Your task to perform on an android device: Open Android settings Image 0: 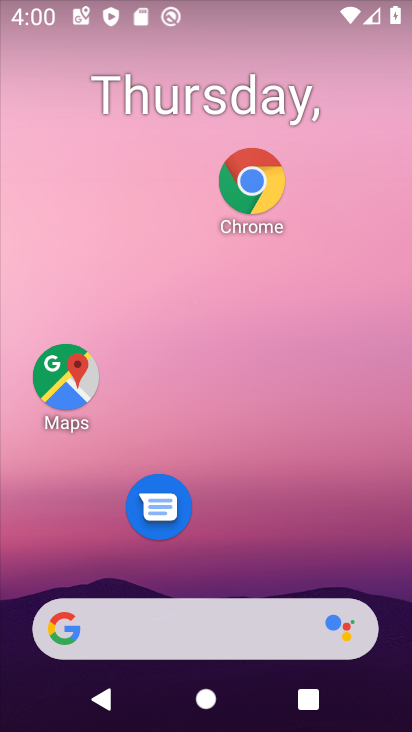
Step 0: drag from (237, 257) to (239, 114)
Your task to perform on an android device: Open Android settings Image 1: 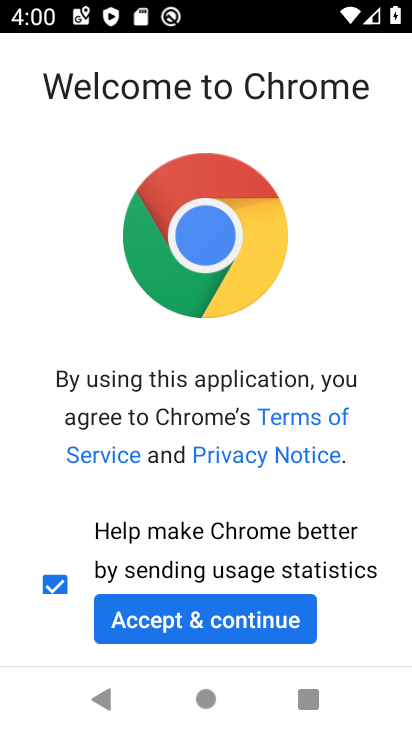
Step 1: press back button
Your task to perform on an android device: Open Android settings Image 2: 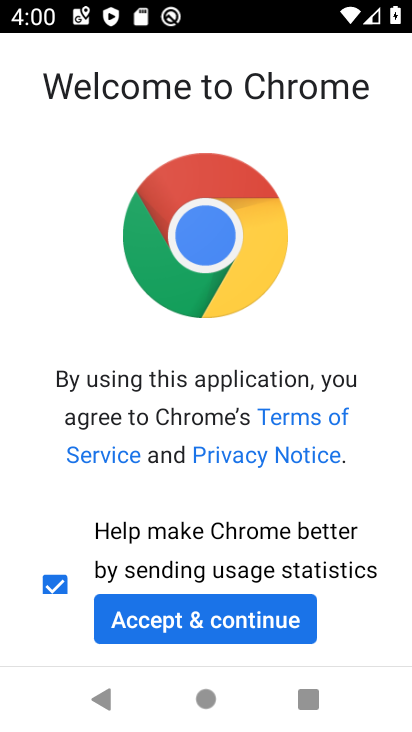
Step 2: press back button
Your task to perform on an android device: Open Android settings Image 3: 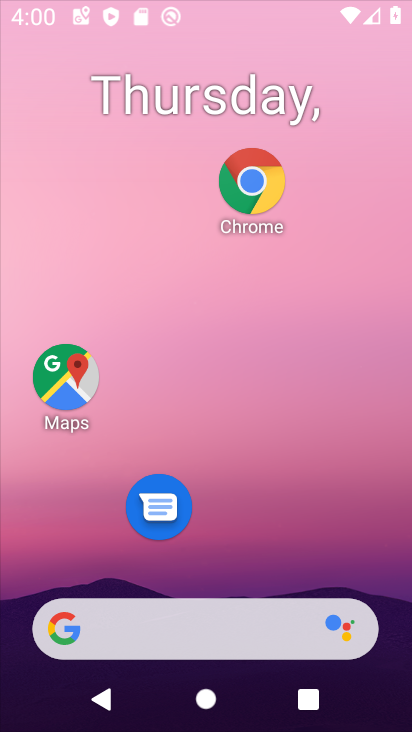
Step 3: press back button
Your task to perform on an android device: Open Android settings Image 4: 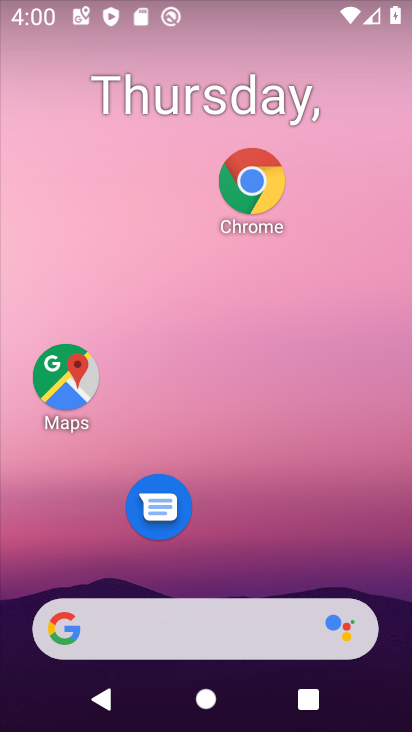
Step 4: drag from (254, 397) to (209, 7)
Your task to perform on an android device: Open Android settings Image 5: 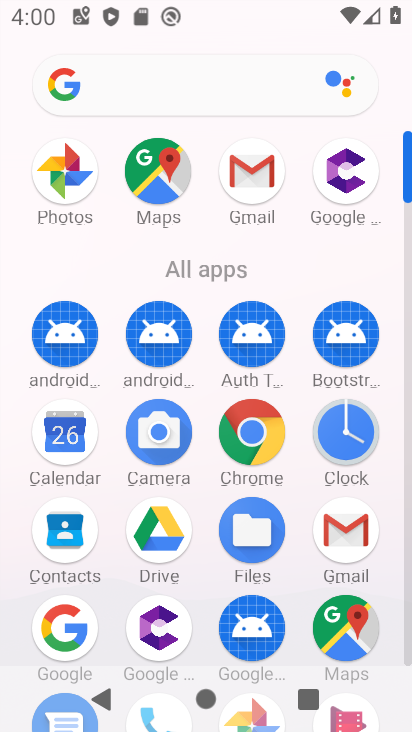
Step 5: drag from (199, 488) to (219, 197)
Your task to perform on an android device: Open Android settings Image 6: 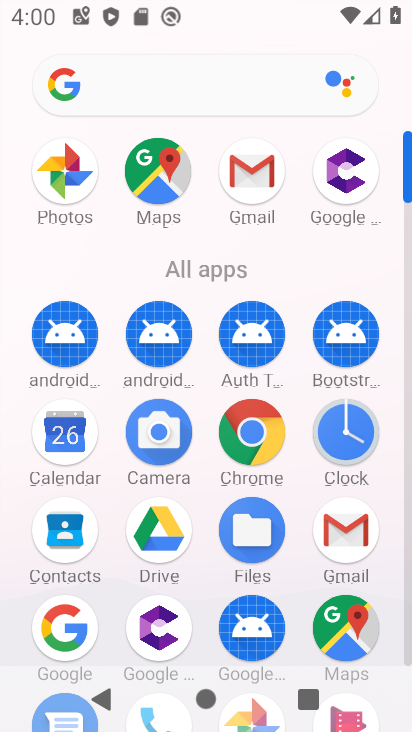
Step 6: drag from (151, 529) to (151, 282)
Your task to perform on an android device: Open Android settings Image 7: 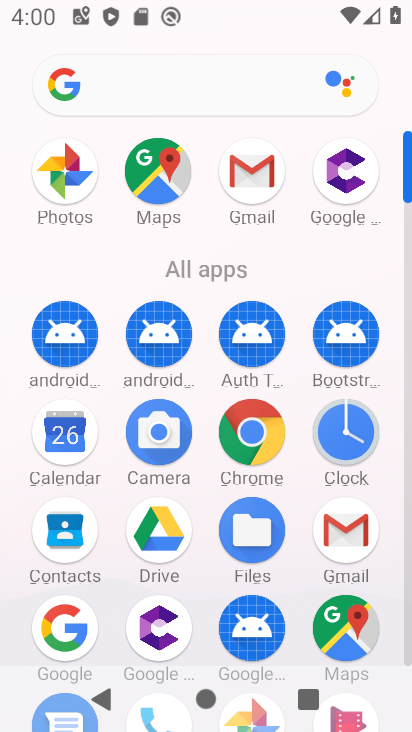
Step 7: drag from (191, 416) to (206, 280)
Your task to perform on an android device: Open Android settings Image 8: 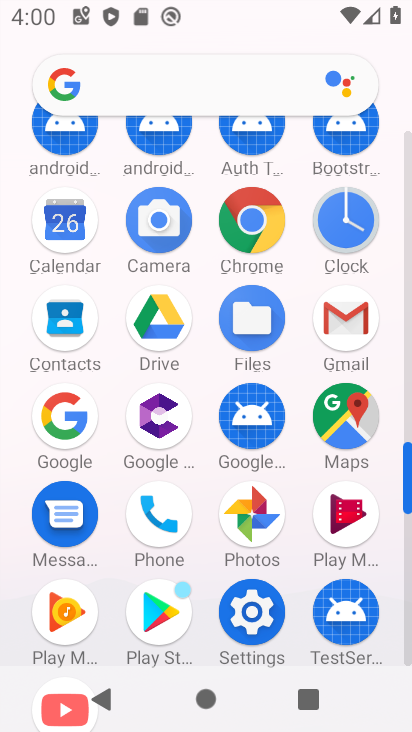
Step 8: drag from (193, 449) to (189, 261)
Your task to perform on an android device: Open Android settings Image 9: 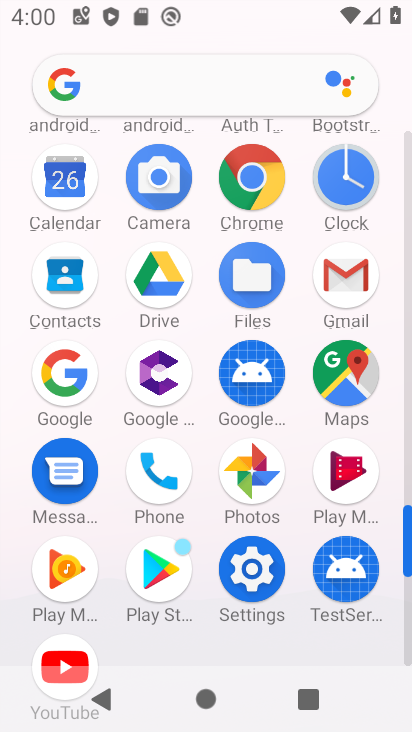
Step 9: click (262, 593)
Your task to perform on an android device: Open Android settings Image 10: 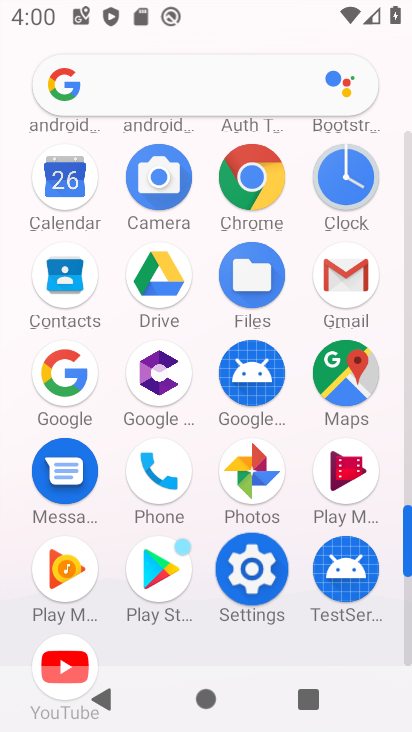
Step 10: click (259, 591)
Your task to perform on an android device: Open Android settings Image 11: 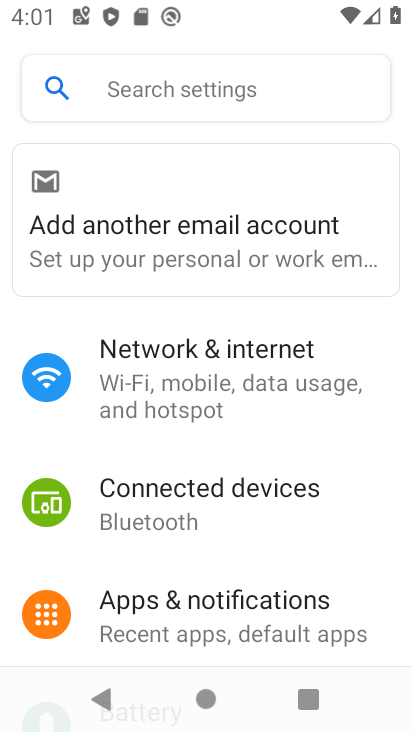
Step 11: click (226, 297)
Your task to perform on an android device: Open Android settings Image 12: 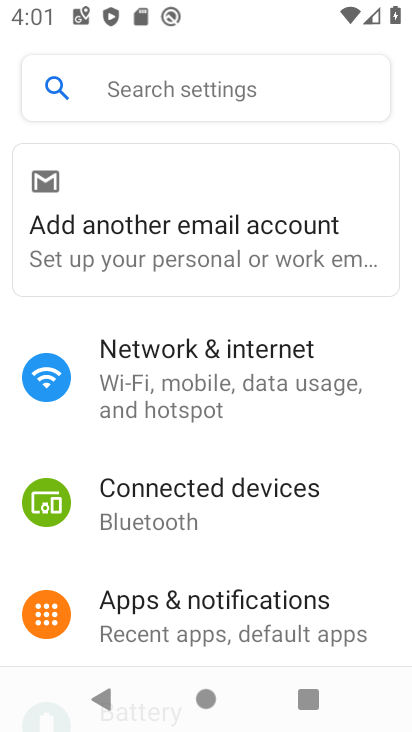
Step 12: drag from (243, 320) to (225, 226)
Your task to perform on an android device: Open Android settings Image 13: 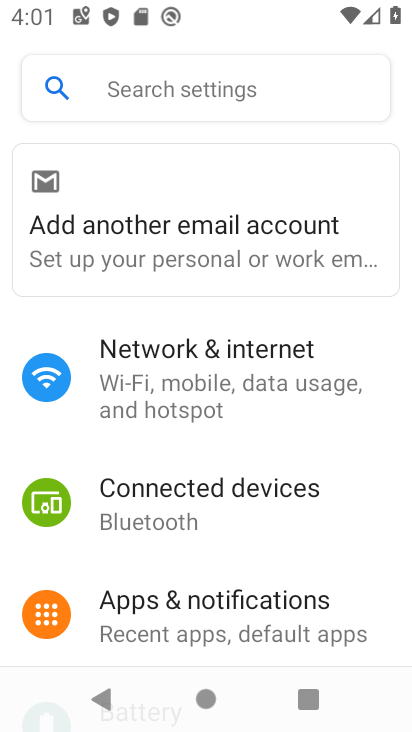
Step 13: drag from (150, 514) to (147, 258)
Your task to perform on an android device: Open Android settings Image 14: 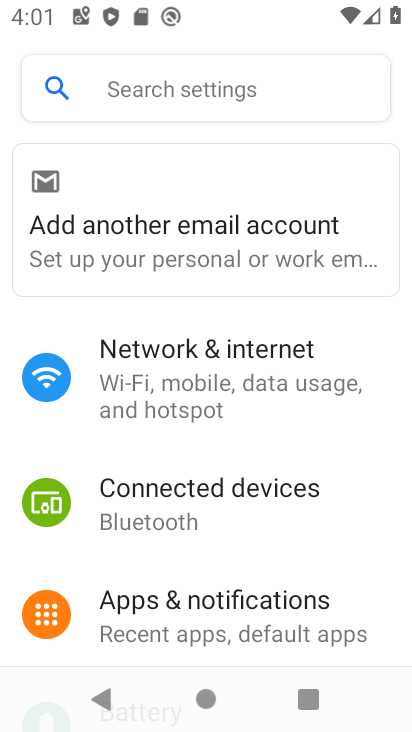
Step 14: drag from (157, 414) to (153, 278)
Your task to perform on an android device: Open Android settings Image 15: 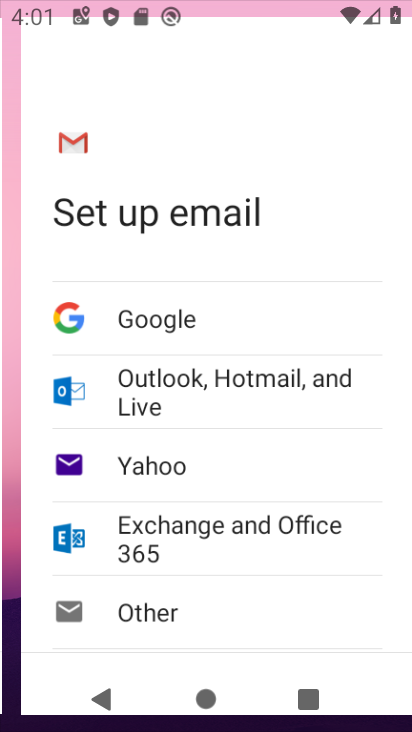
Step 15: drag from (190, 367) to (190, 319)
Your task to perform on an android device: Open Android settings Image 16: 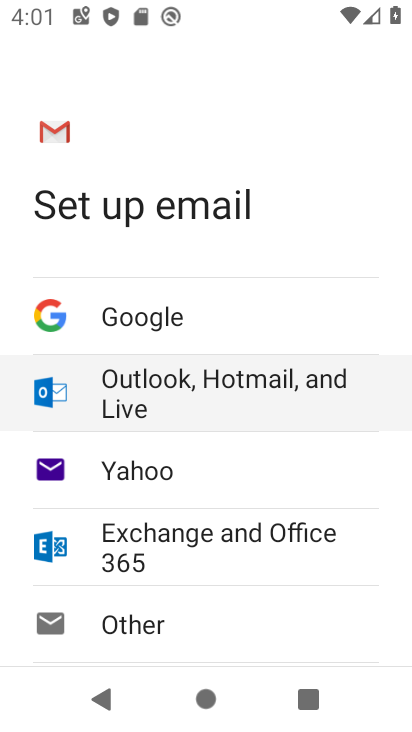
Step 16: click (211, 302)
Your task to perform on an android device: Open Android settings Image 17: 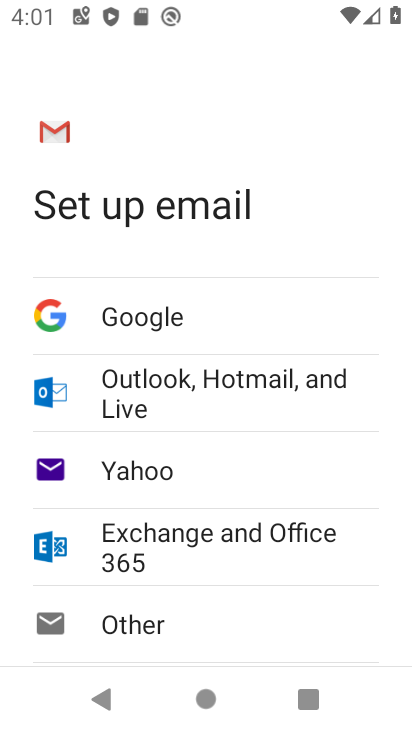
Step 17: click (273, 345)
Your task to perform on an android device: Open Android settings Image 18: 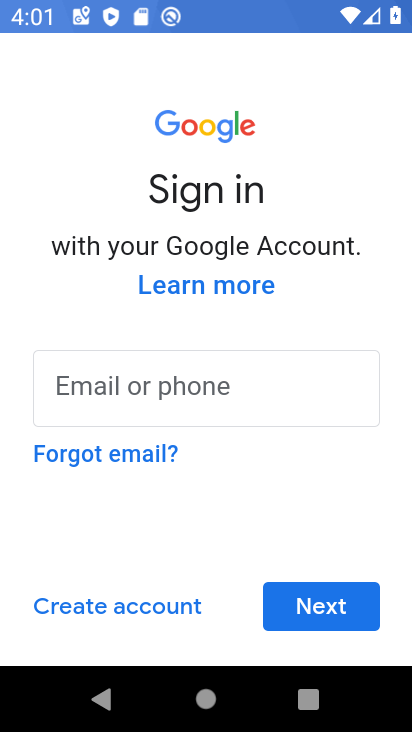
Step 18: press back button
Your task to perform on an android device: Open Android settings Image 19: 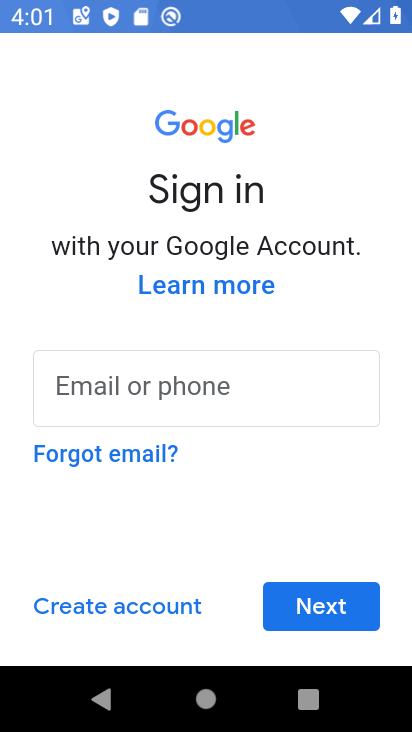
Step 19: press back button
Your task to perform on an android device: Open Android settings Image 20: 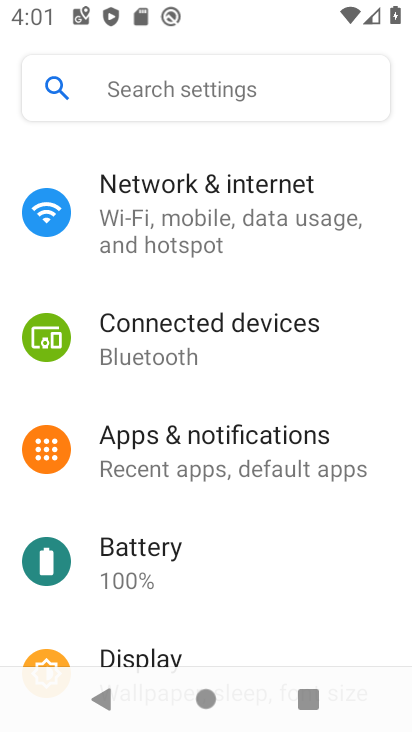
Step 20: press back button
Your task to perform on an android device: Open Android settings Image 21: 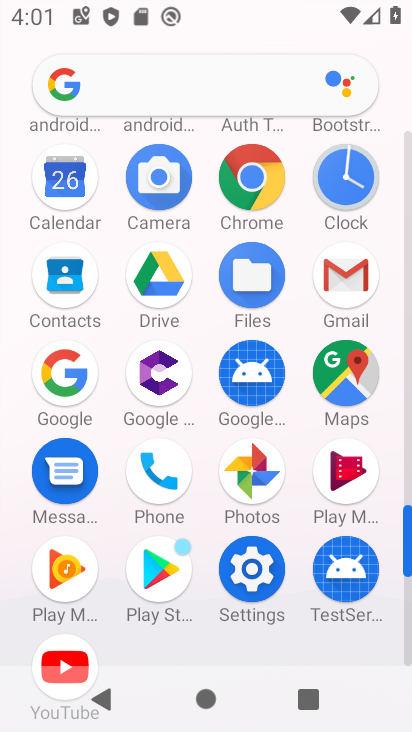
Step 21: drag from (181, 564) to (232, 136)
Your task to perform on an android device: Open Android settings Image 22: 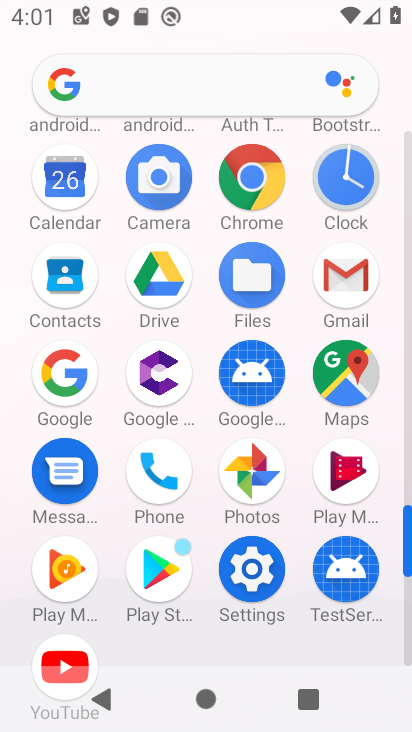
Step 22: click (256, 572)
Your task to perform on an android device: Open Android settings Image 23: 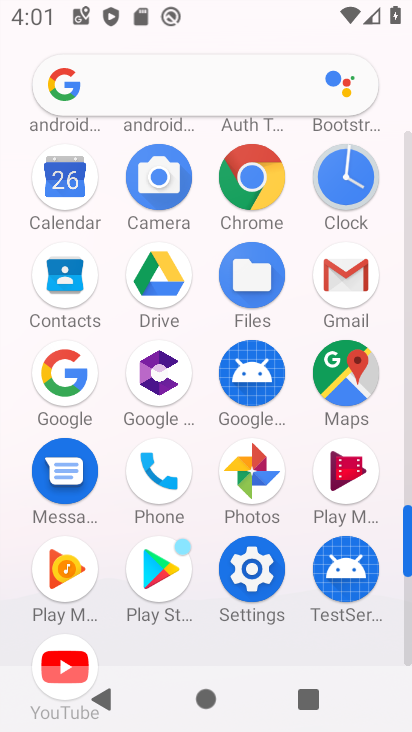
Step 23: click (257, 569)
Your task to perform on an android device: Open Android settings Image 24: 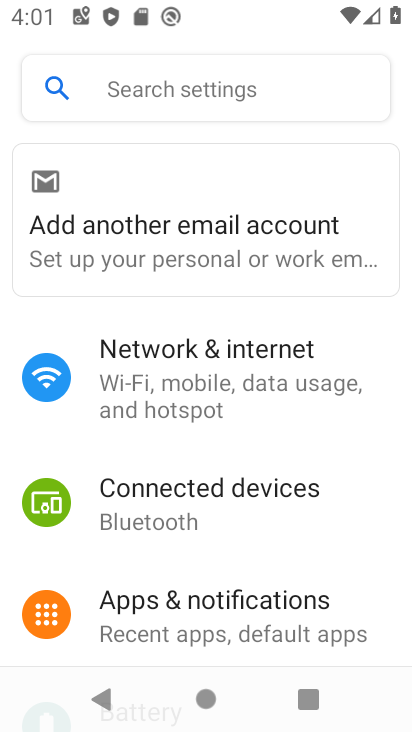
Step 24: click (179, 335)
Your task to perform on an android device: Open Android settings Image 25: 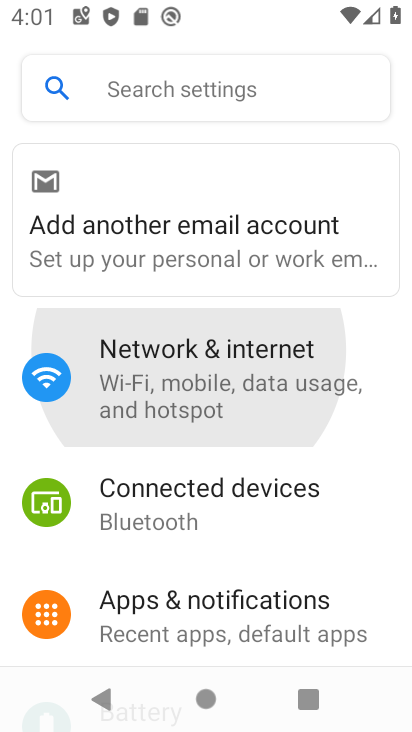
Step 25: drag from (215, 467) to (215, 292)
Your task to perform on an android device: Open Android settings Image 26: 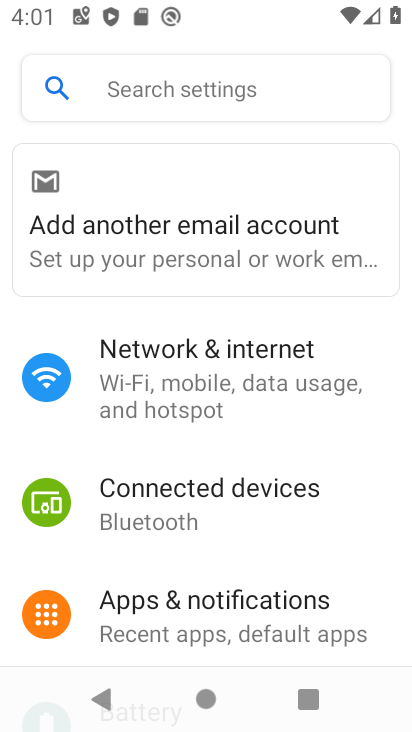
Step 26: drag from (238, 487) to (251, 314)
Your task to perform on an android device: Open Android settings Image 27: 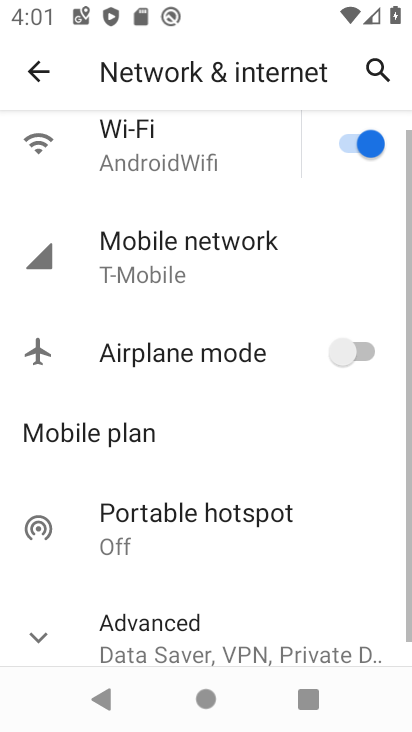
Step 27: drag from (212, 533) to (215, 315)
Your task to perform on an android device: Open Android settings Image 28: 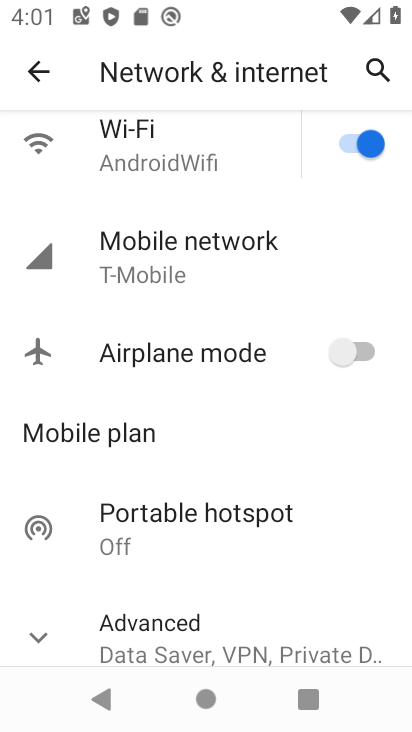
Step 28: click (232, 298)
Your task to perform on an android device: Open Android settings Image 29: 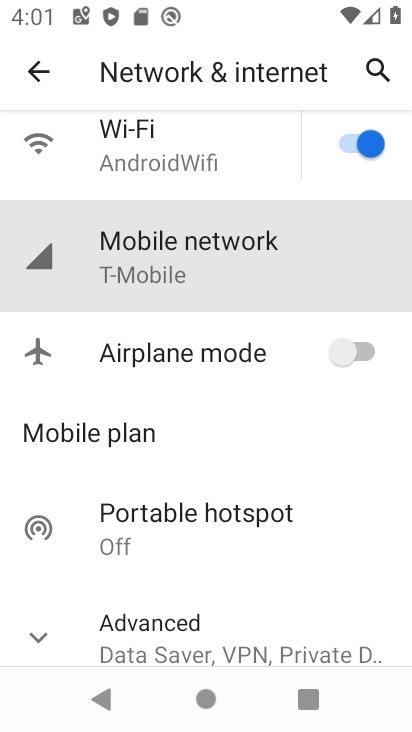
Step 29: drag from (218, 443) to (196, 202)
Your task to perform on an android device: Open Android settings Image 30: 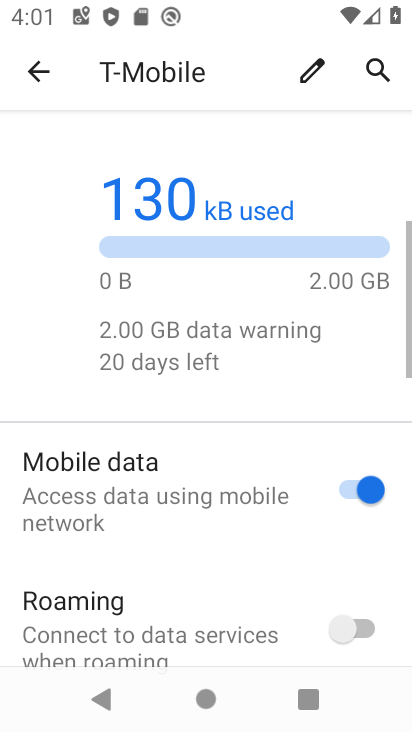
Step 30: click (162, 287)
Your task to perform on an android device: Open Android settings Image 31: 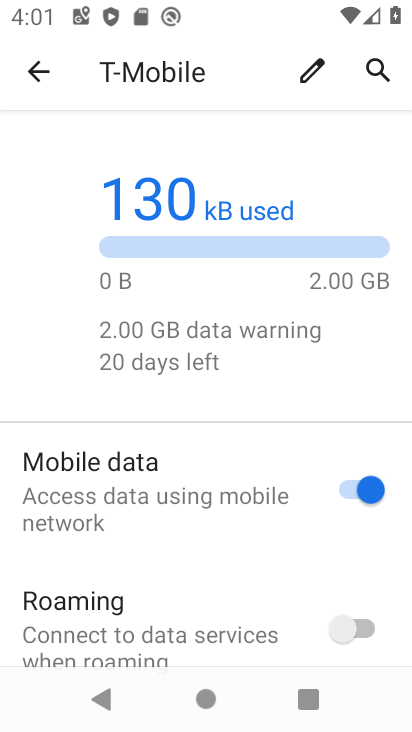
Step 31: click (46, 74)
Your task to perform on an android device: Open Android settings Image 32: 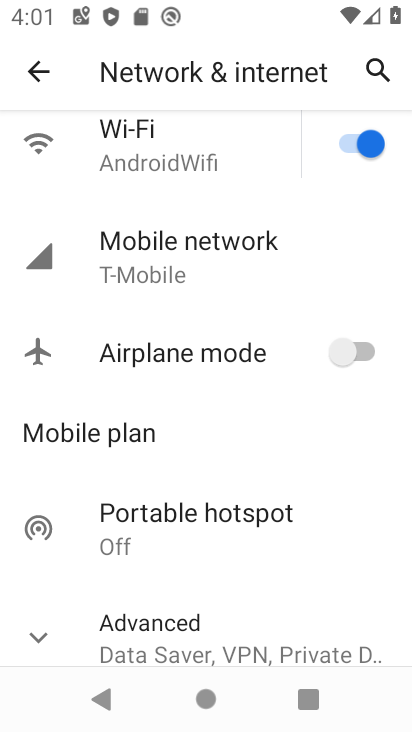
Step 32: drag from (208, 562) to (176, 344)
Your task to perform on an android device: Open Android settings Image 33: 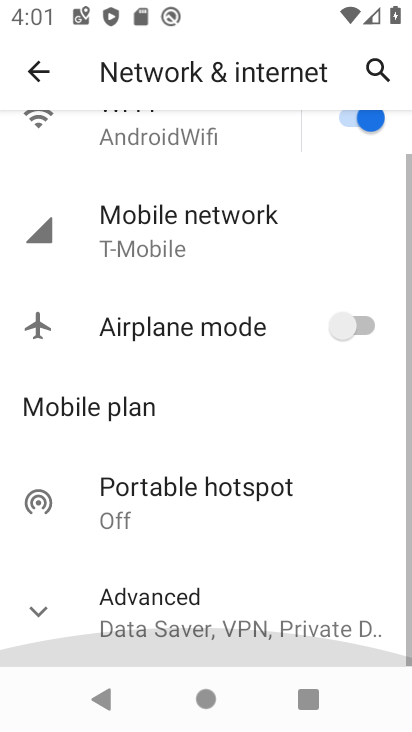
Step 33: drag from (202, 503) to (218, 356)
Your task to perform on an android device: Open Android settings Image 34: 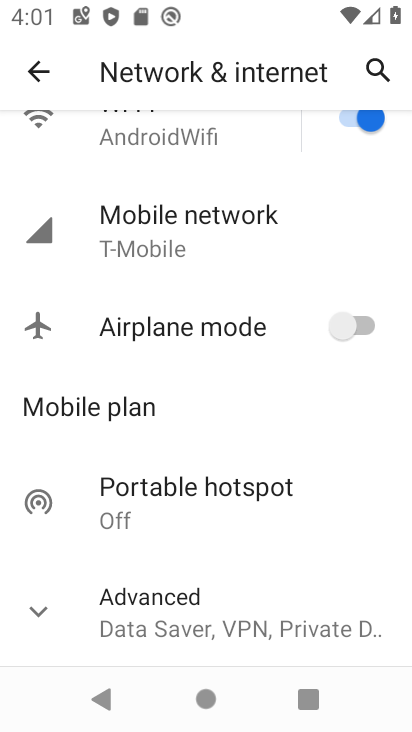
Step 34: click (255, 372)
Your task to perform on an android device: Open Android settings Image 35: 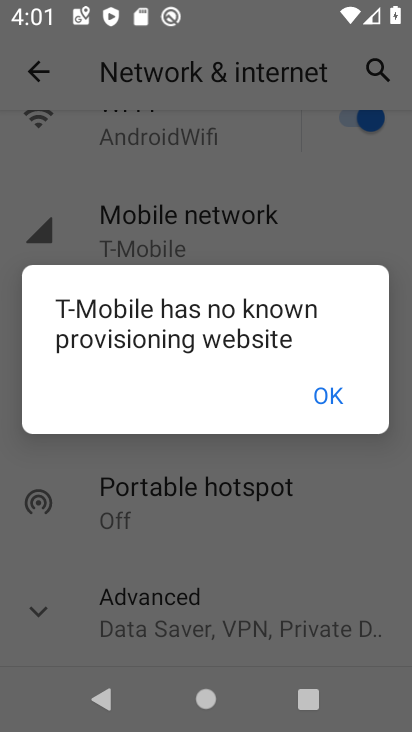
Step 35: click (332, 396)
Your task to perform on an android device: Open Android settings Image 36: 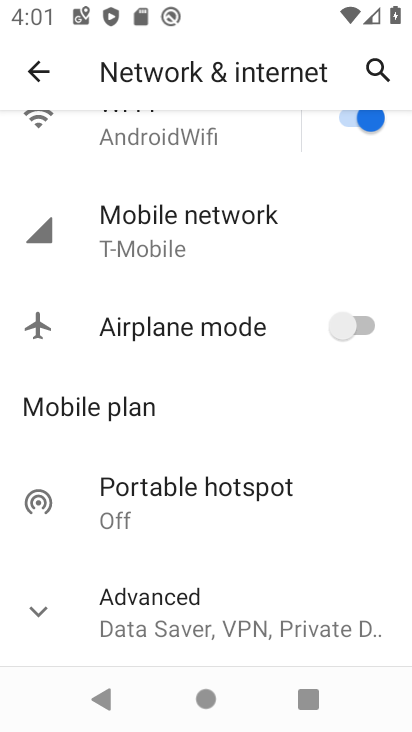
Step 36: click (27, 59)
Your task to perform on an android device: Open Android settings Image 37: 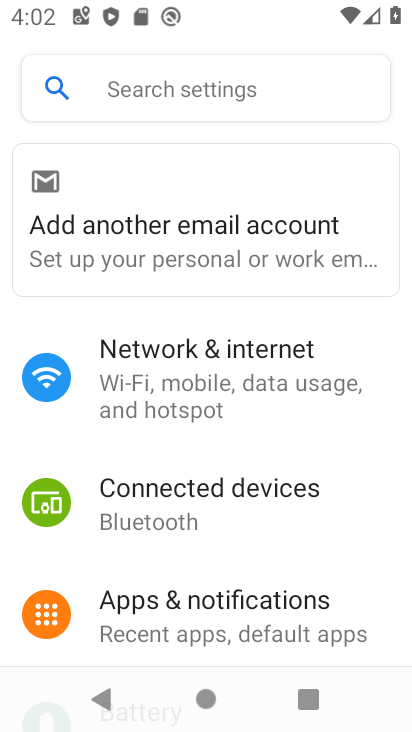
Step 37: drag from (168, 457) to (168, 227)
Your task to perform on an android device: Open Android settings Image 38: 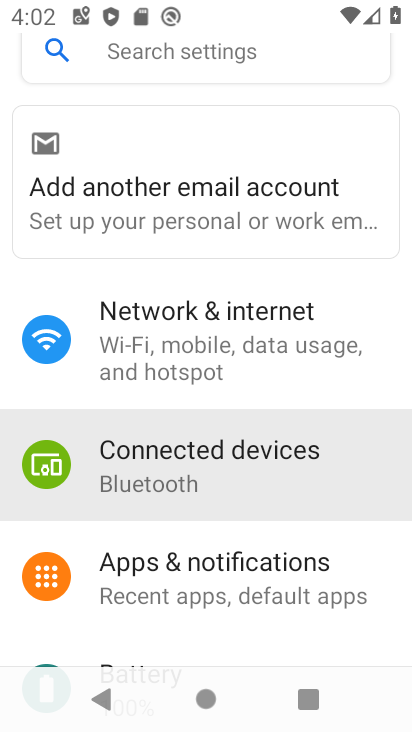
Step 38: drag from (224, 533) to (250, 358)
Your task to perform on an android device: Open Android settings Image 39: 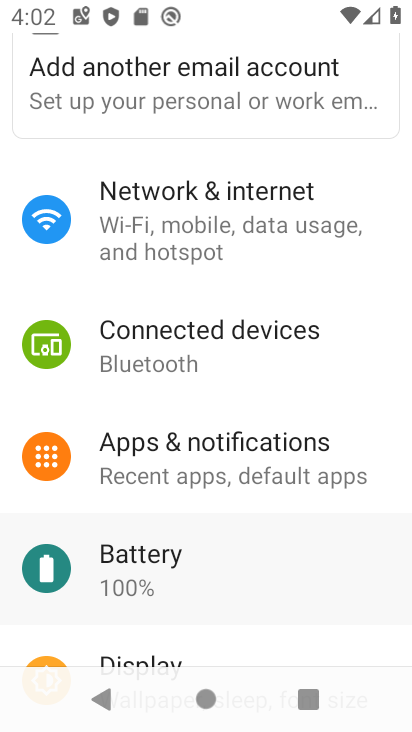
Step 39: drag from (265, 507) to (268, 275)
Your task to perform on an android device: Open Android settings Image 40: 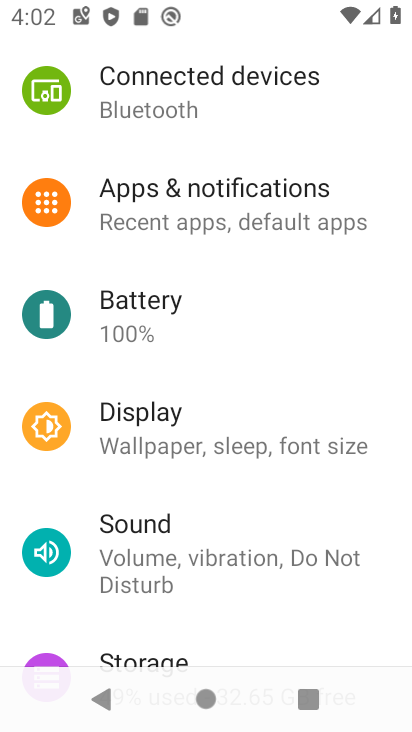
Step 40: drag from (225, 300) to (231, 236)
Your task to perform on an android device: Open Android settings Image 41: 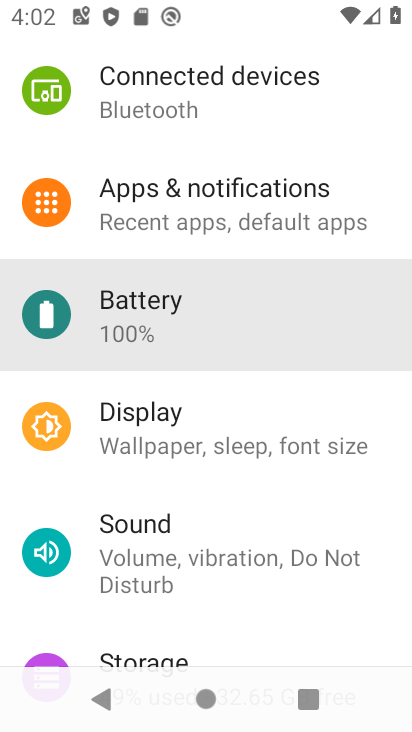
Step 41: drag from (227, 443) to (241, 204)
Your task to perform on an android device: Open Android settings Image 42: 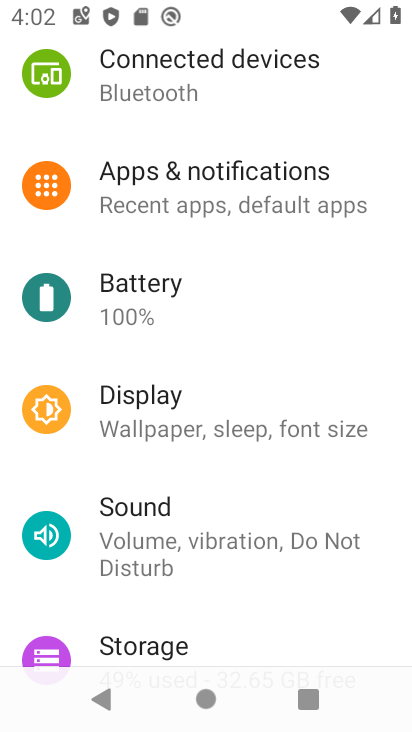
Step 42: click (227, 183)
Your task to perform on an android device: Open Android settings Image 43: 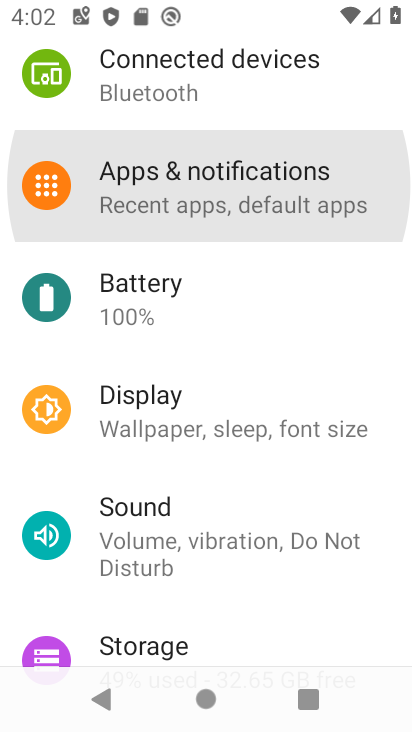
Step 43: drag from (154, 493) to (188, 166)
Your task to perform on an android device: Open Android settings Image 44: 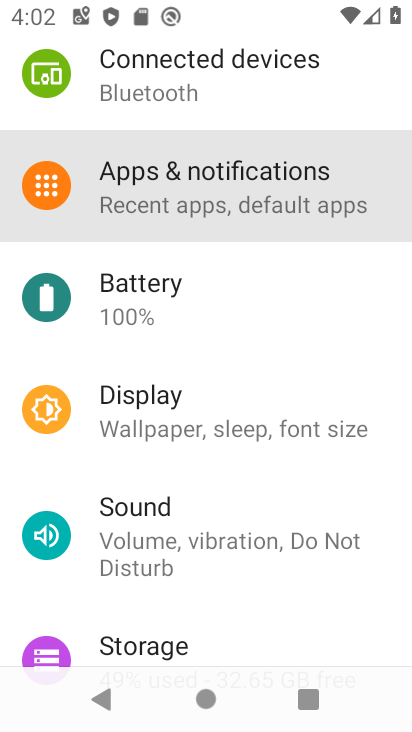
Step 44: drag from (228, 479) to (296, 186)
Your task to perform on an android device: Open Android settings Image 45: 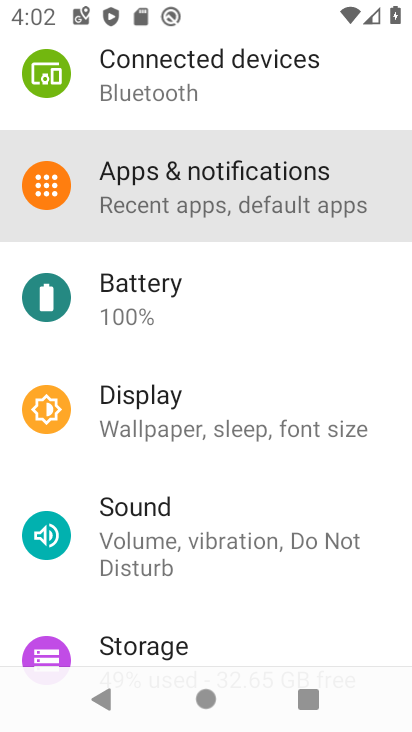
Step 45: drag from (329, 297) to (329, 161)
Your task to perform on an android device: Open Android settings Image 46: 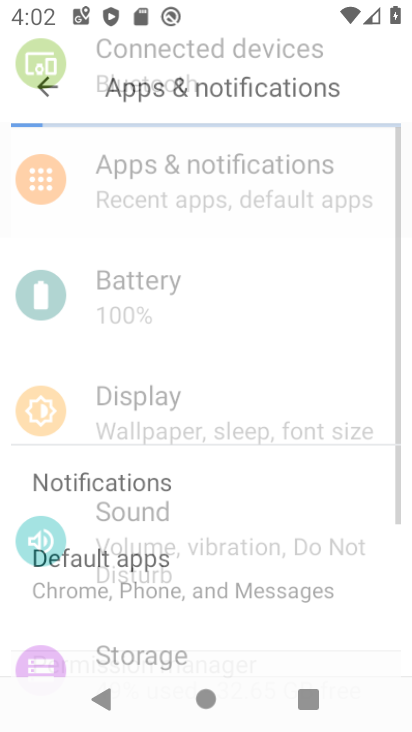
Step 46: drag from (214, 359) to (205, 187)
Your task to perform on an android device: Open Android settings Image 47: 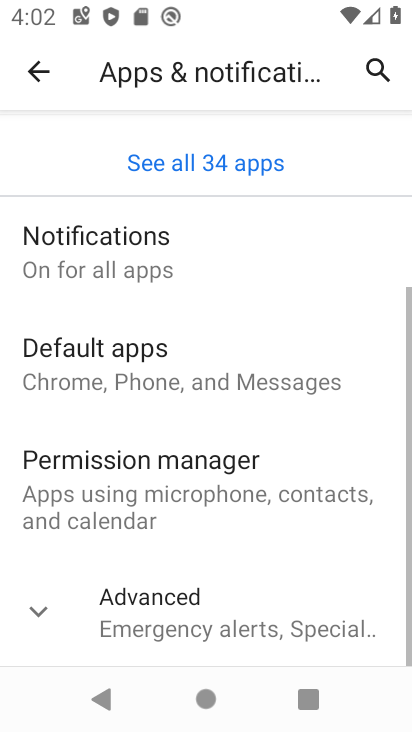
Step 47: click (30, 73)
Your task to perform on an android device: Open Android settings Image 48: 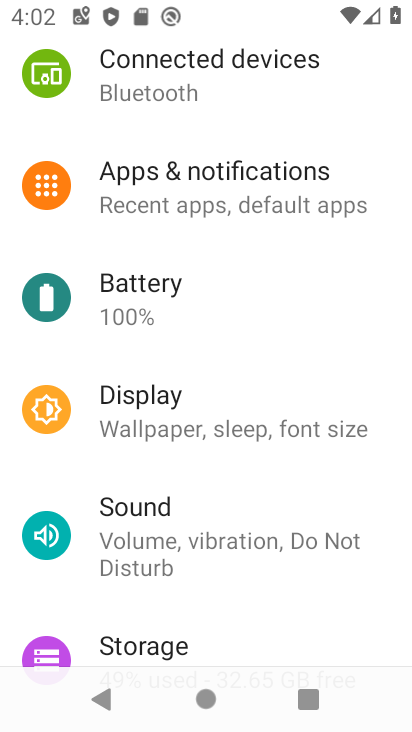
Step 48: drag from (184, 474) to (194, 220)
Your task to perform on an android device: Open Android settings Image 49: 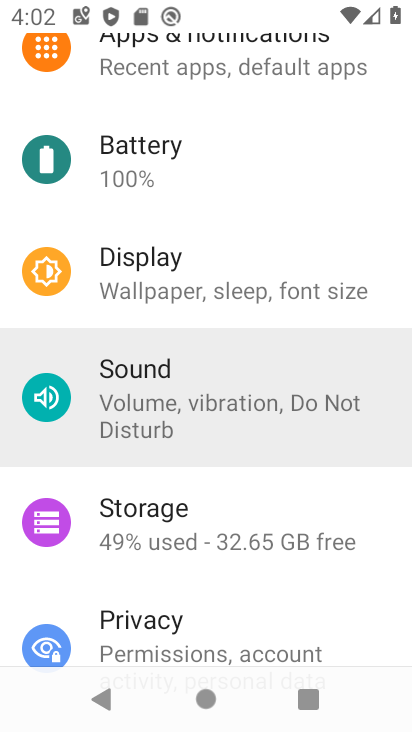
Step 49: drag from (230, 485) to (242, 270)
Your task to perform on an android device: Open Android settings Image 50: 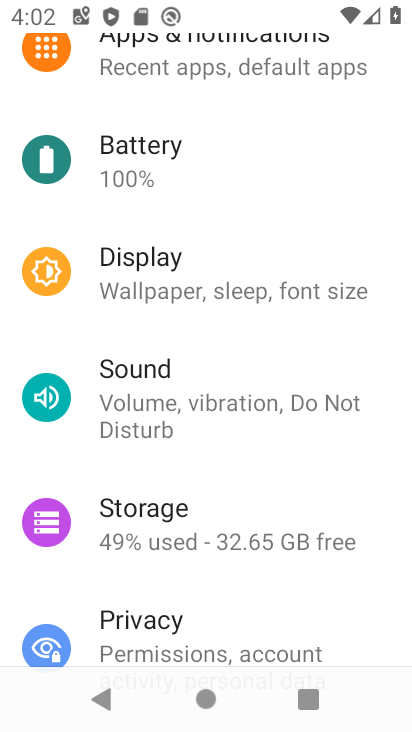
Step 50: drag from (230, 406) to (227, 281)
Your task to perform on an android device: Open Android settings Image 51: 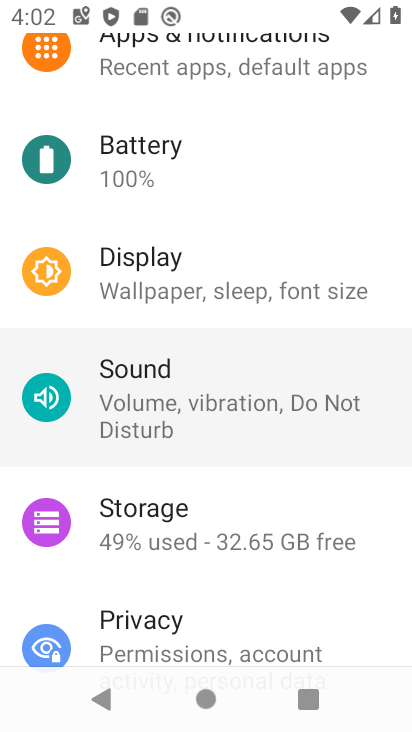
Step 51: click (233, 309)
Your task to perform on an android device: Open Android settings Image 52: 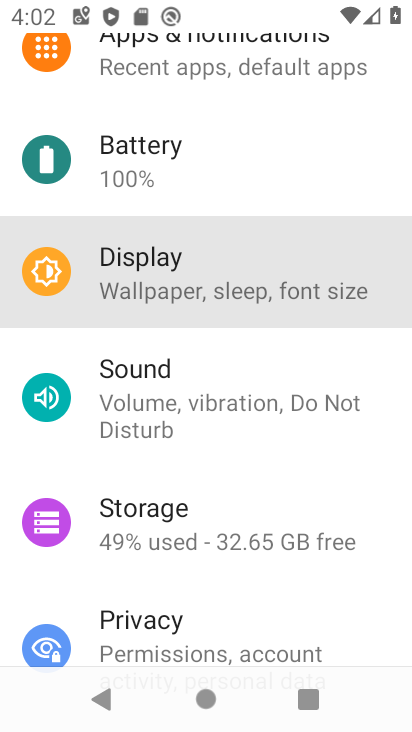
Step 52: drag from (207, 413) to (179, 295)
Your task to perform on an android device: Open Android settings Image 53: 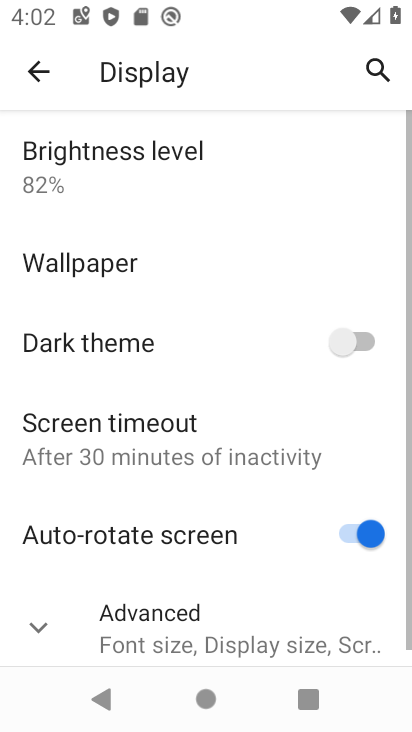
Step 53: drag from (233, 357) to (229, 221)
Your task to perform on an android device: Open Android settings Image 54: 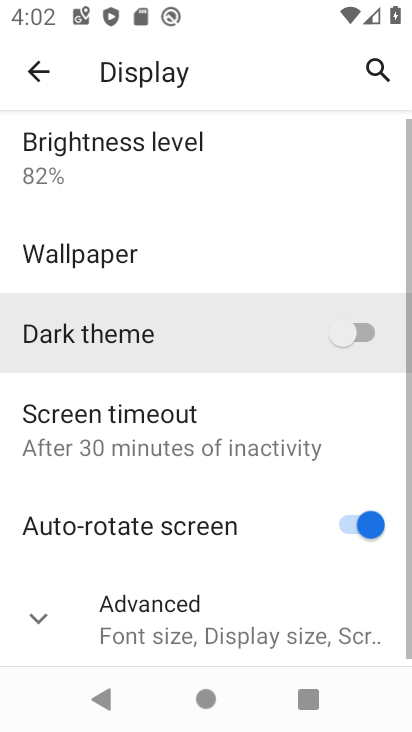
Step 54: drag from (229, 516) to (225, 239)
Your task to perform on an android device: Open Android settings Image 55: 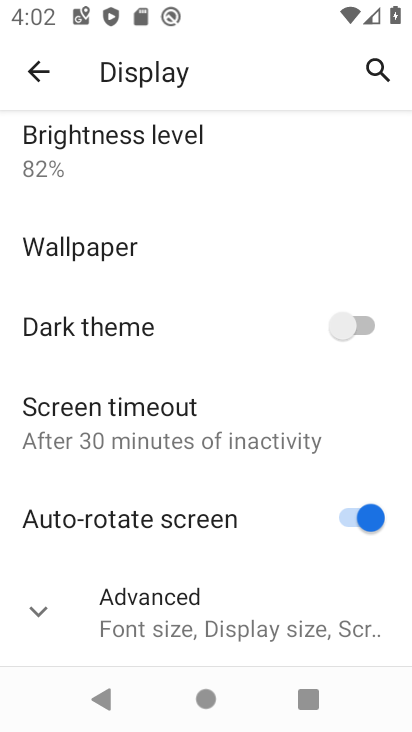
Step 55: click (40, 77)
Your task to perform on an android device: Open Android settings Image 56: 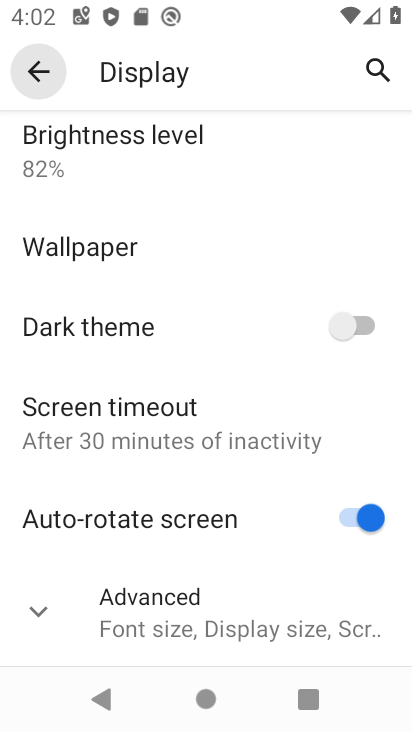
Step 56: click (40, 76)
Your task to perform on an android device: Open Android settings Image 57: 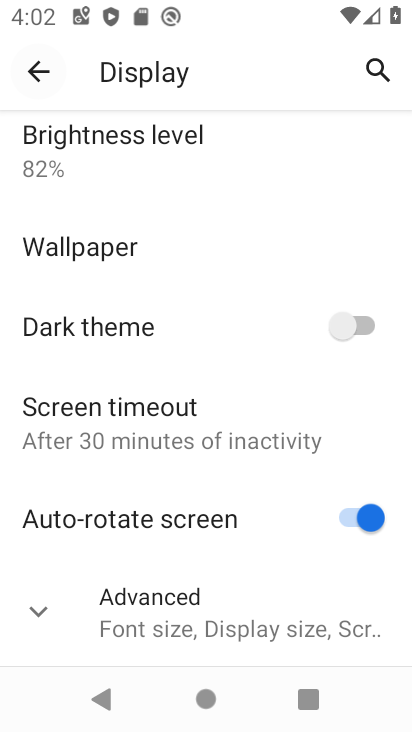
Step 57: click (39, 75)
Your task to perform on an android device: Open Android settings Image 58: 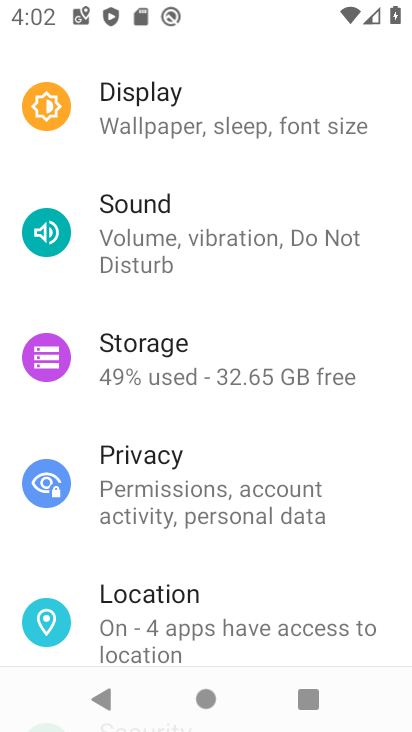
Step 58: drag from (159, 608) to (210, 205)
Your task to perform on an android device: Open Android settings Image 59: 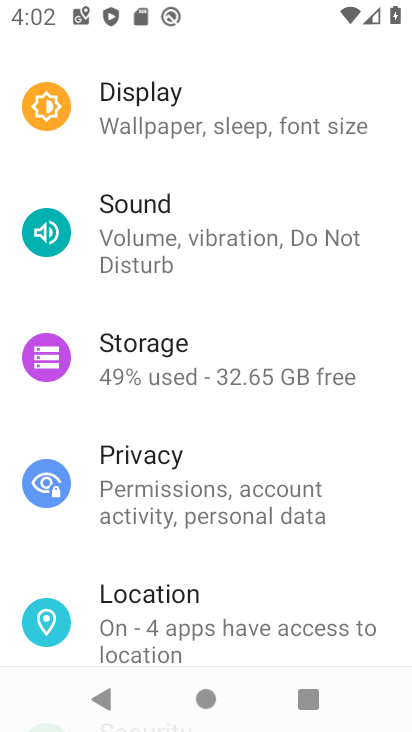
Step 59: drag from (200, 512) to (234, 77)
Your task to perform on an android device: Open Android settings Image 60: 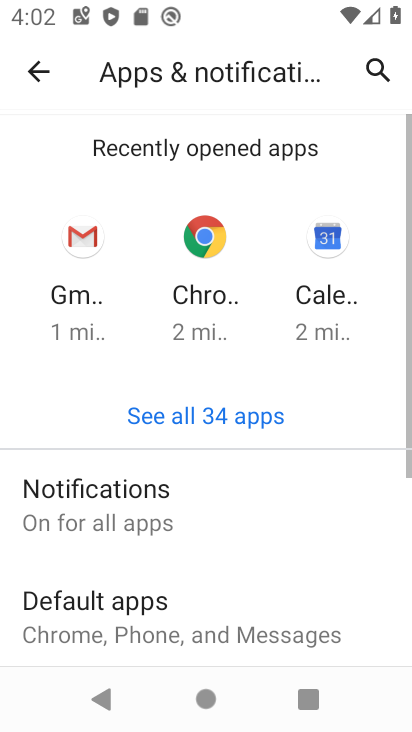
Step 60: click (166, 285)
Your task to perform on an android device: Open Android settings Image 61: 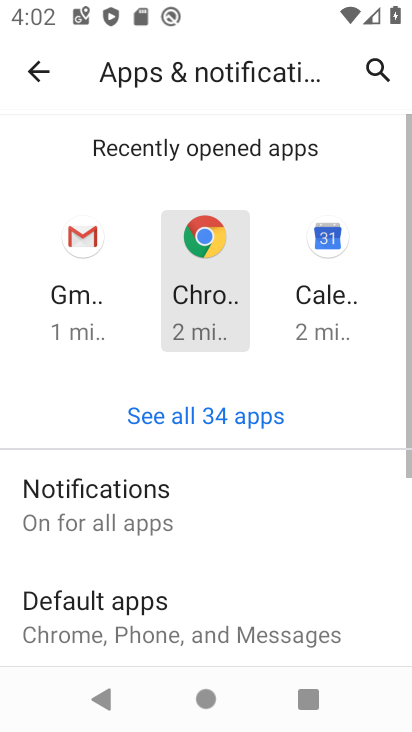
Step 61: click (34, 70)
Your task to perform on an android device: Open Android settings Image 62: 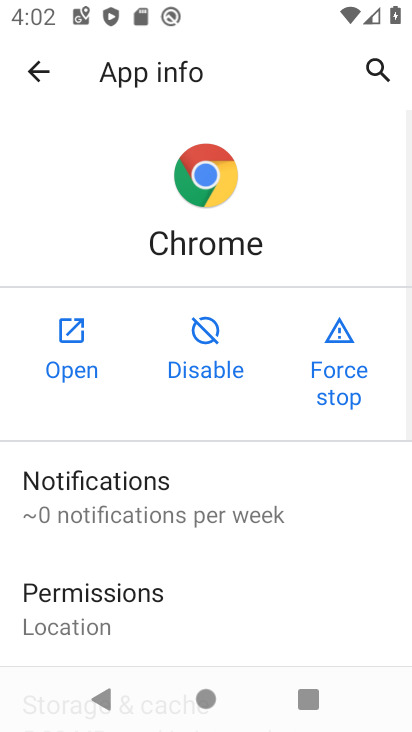
Step 62: drag from (125, 535) to (121, 118)
Your task to perform on an android device: Open Android settings Image 63: 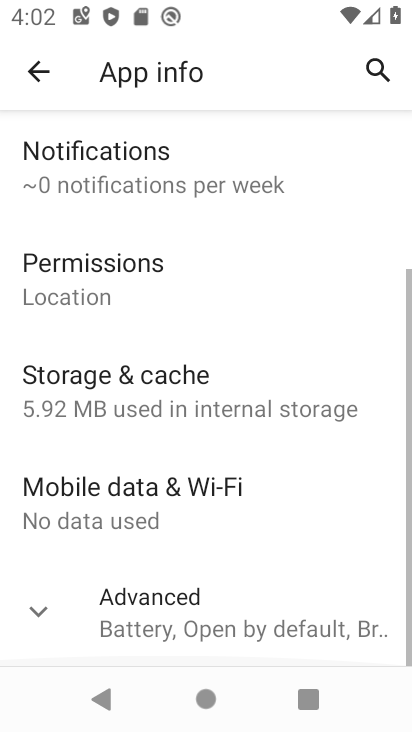
Step 63: drag from (151, 152) to (151, 118)
Your task to perform on an android device: Open Android settings Image 64: 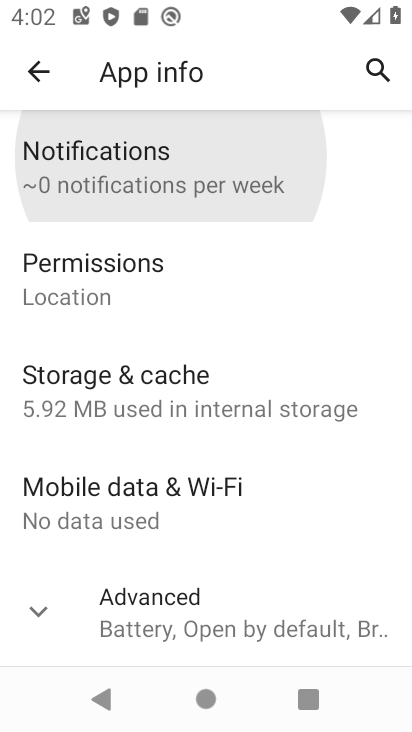
Step 64: drag from (134, 507) to (159, 263)
Your task to perform on an android device: Open Android settings Image 65: 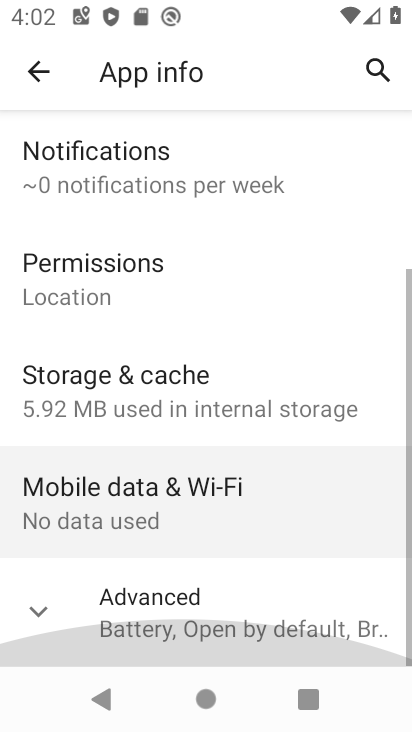
Step 65: drag from (174, 586) to (209, 322)
Your task to perform on an android device: Open Android settings Image 66: 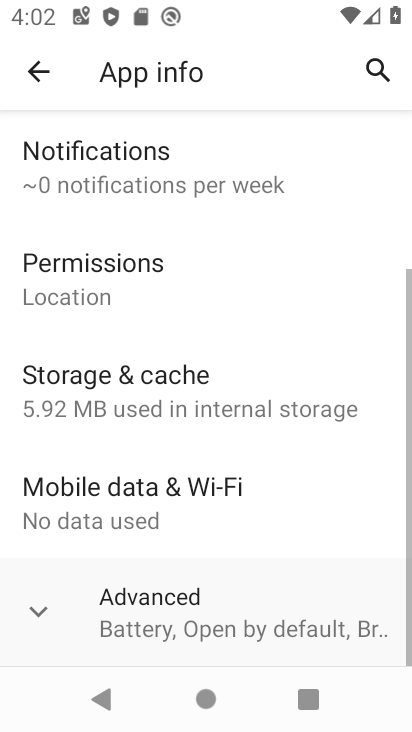
Step 66: drag from (216, 356) to (213, 226)
Your task to perform on an android device: Open Android settings Image 67: 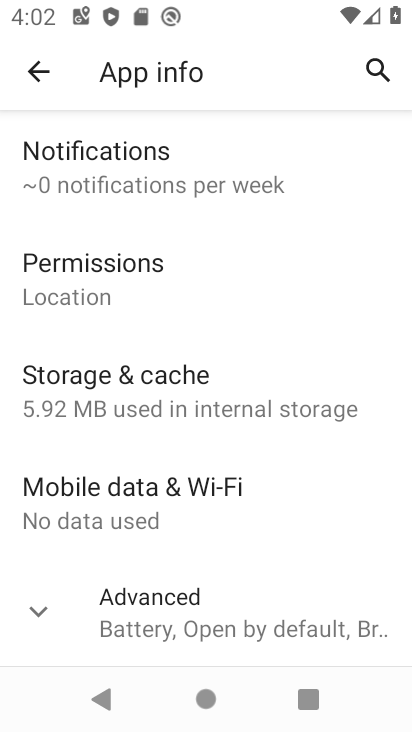
Step 67: click (135, 618)
Your task to perform on an android device: Open Android settings Image 68: 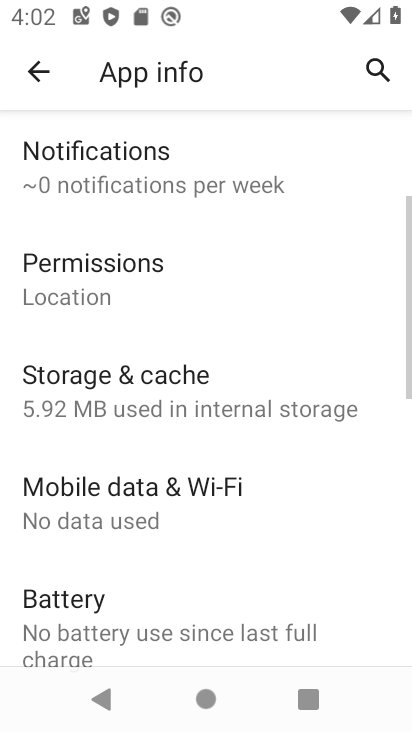
Step 68: task complete